Your task to perform on an android device: open chrome and create a bookmark for the current page Image 0: 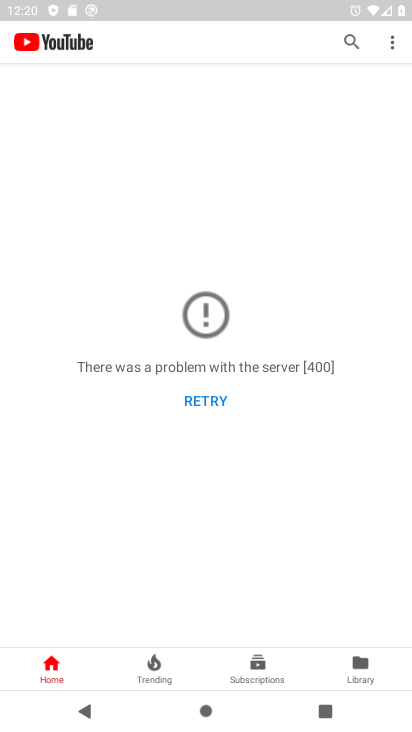
Step 0: press home button
Your task to perform on an android device: open chrome and create a bookmark for the current page Image 1: 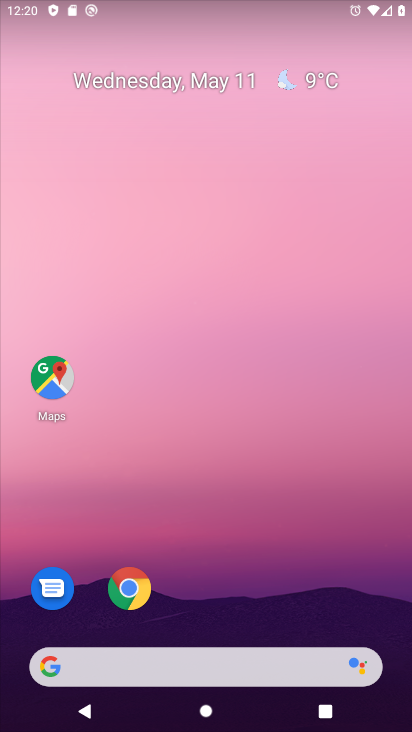
Step 1: click (129, 592)
Your task to perform on an android device: open chrome and create a bookmark for the current page Image 2: 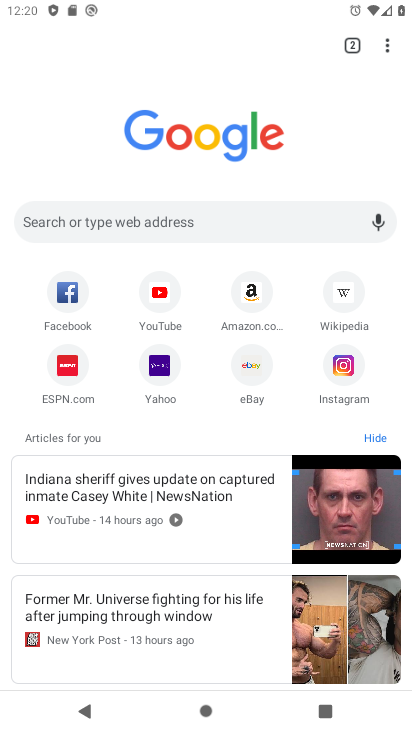
Step 2: drag from (386, 44) to (252, 44)
Your task to perform on an android device: open chrome and create a bookmark for the current page Image 3: 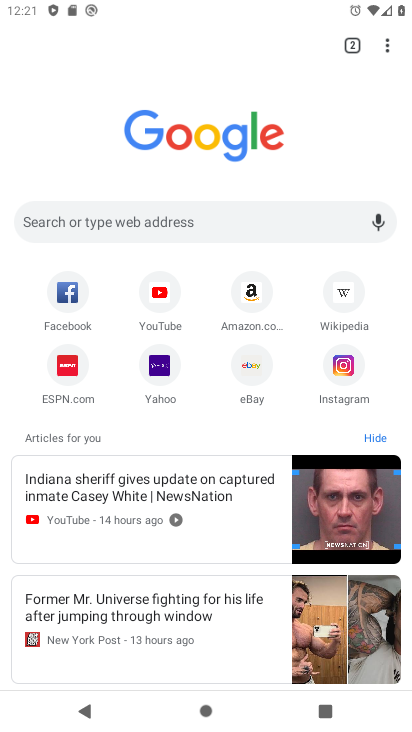
Step 3: click (386, 44)
Your task to perform on an android device: open chrome and create a bookmark for the current page Image 4: 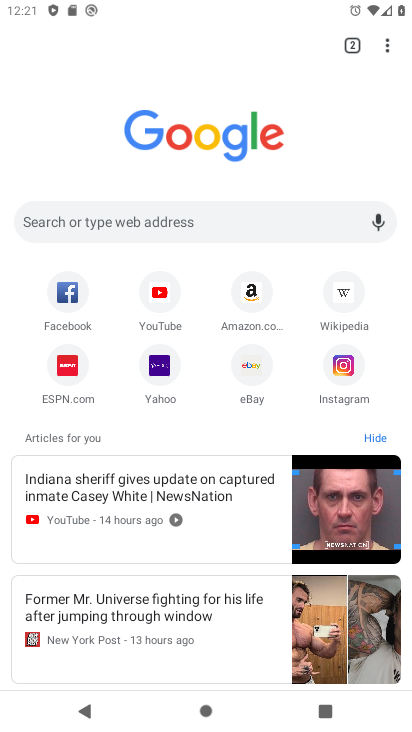
Step 4: task complete